Your task to perform on an android device: toggle pop-ups in chrome Image 0: 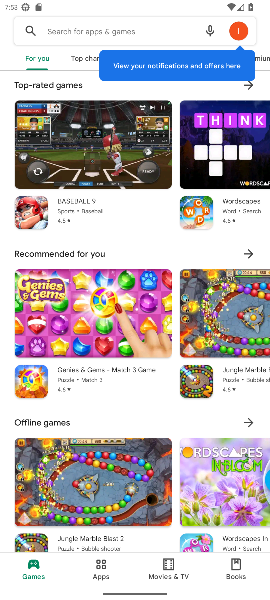
Step 0: press home button
Your task to perform on an android device: toggle pop-ups in chrome Image 1: 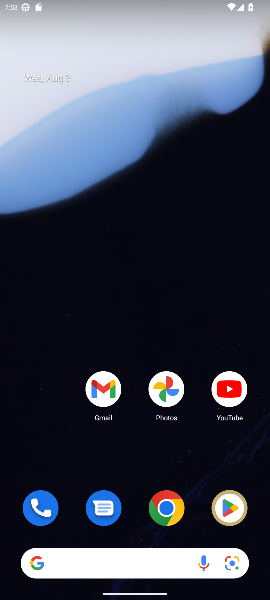
Step 1: click (178, 510)
Your task to perform on an android device: toggle pop-ups in chrome Image 2: 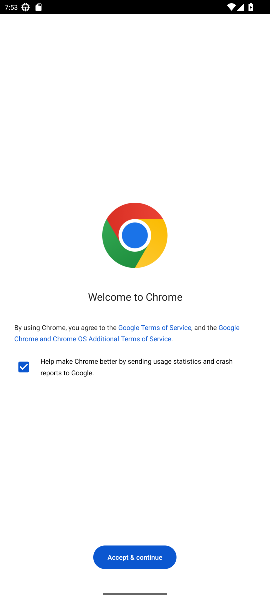
Step 2: click (140, 556)
Your task to perform on an android device: toggle pop-ups in chrome Image 3: 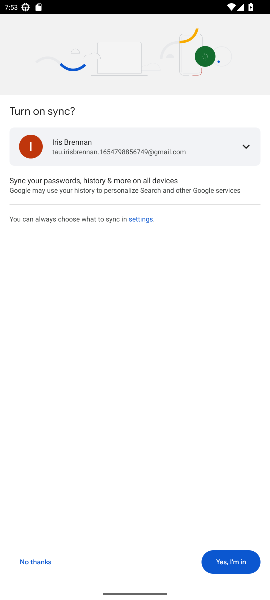
Step 3: click (240, 559)
Your task to perform on an android device: toggle pop-ups in chrome Image 4: 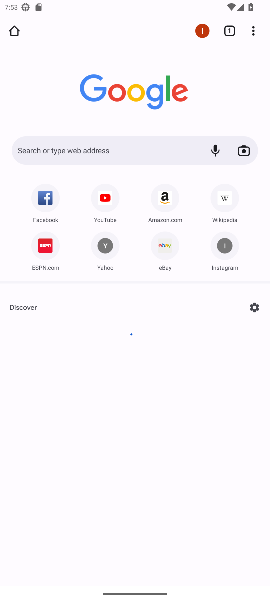
Step 4: click (250, 35)
Your task to perform on an android device: toggle pop-ups in chrome Image 5: 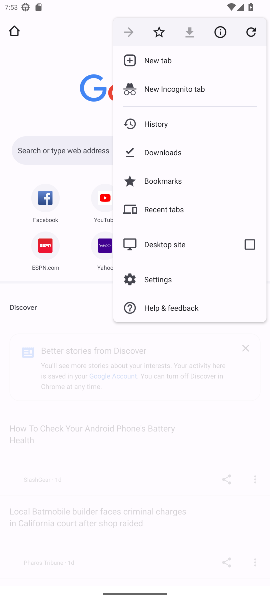
Step 5: click (151, 286)
Your task to perform on an android device: toggle pop-ups in chrome Image 6: 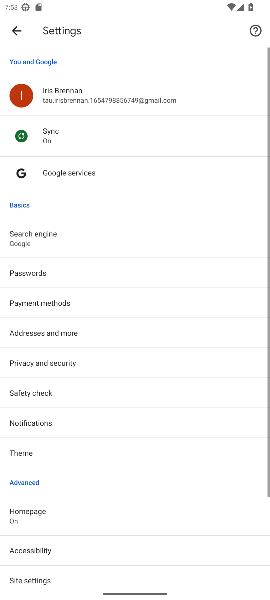
Step 6: drag from (81, 502) to (67, 131)
Your task to perform on an android device: toggle pop-ups in chrome Image 7: 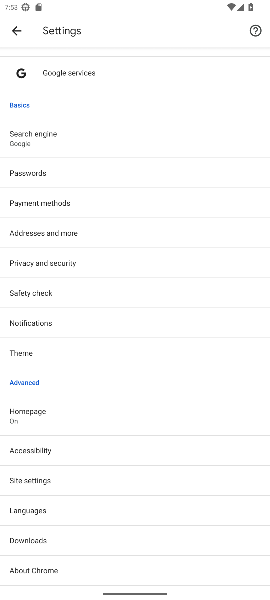
Step 7: click (35, 479)
Your task to perform on an android device: toggle pop-ups in chrome Image 8: 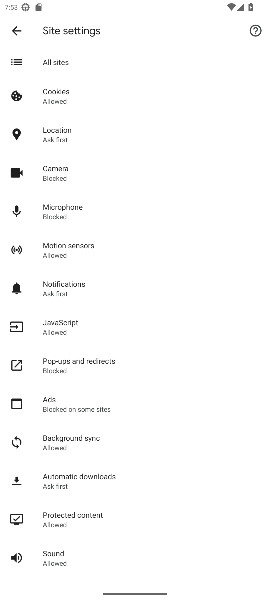
Step 8: click (78, 358)
Your task to perform on an android device: toggle pop-ups in chrome Image 9: 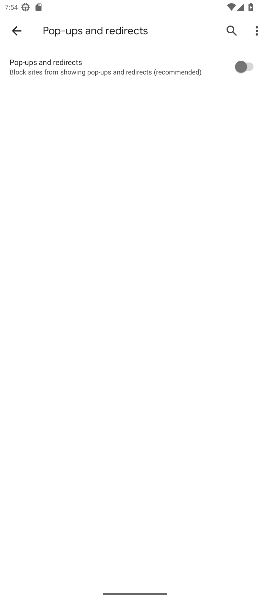
Step 9: click (236, 67)
Your task to perform on an android device: toggle pop-ups in chrome Image 10: 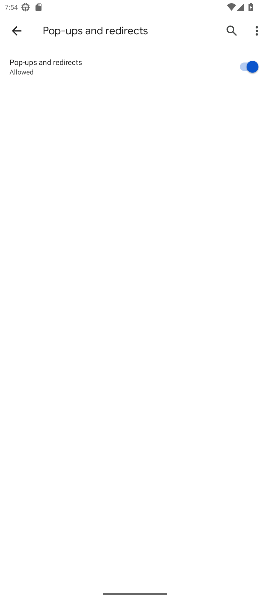
Step 10: task complete